Your task to perform on an android device: read, delete, or share a saved page in the chrome app Image 0: 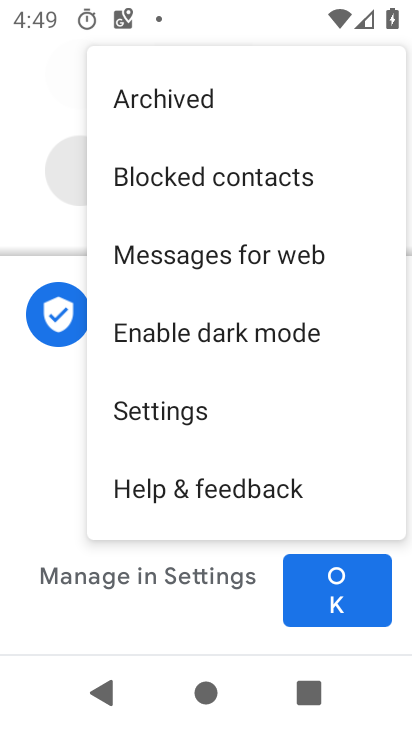
Step 0: press home button
Your task to perform on an android device: read, delete, or share a saved page in the chrome app Image 1: 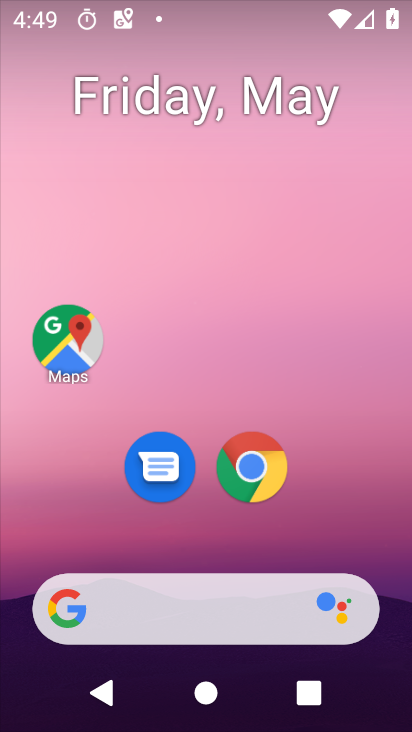
Step 1: click (254, 465)
Your task to perform on an android device: read, delete, or share a saved page in the chrome app Image 2: 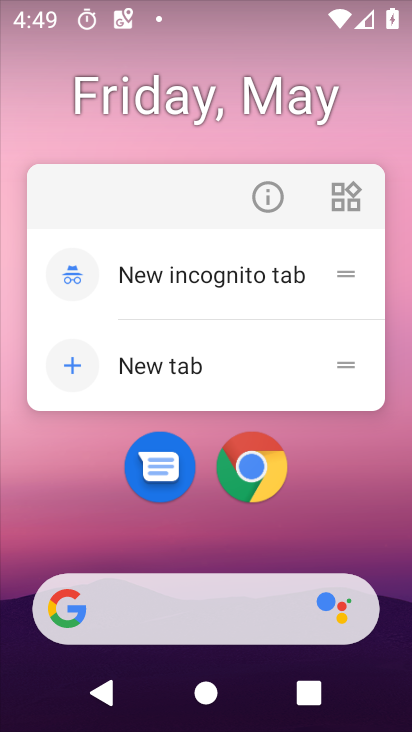
Step 2: click (247, 473)
Your task to perform on an android device: read, delete, or share a saved page in the chrome app Image 3: 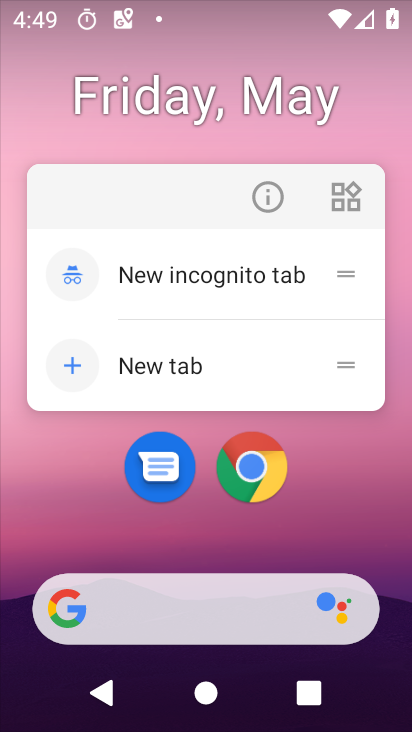
Step 3: click (293, 449)
Your task to perform on an android device: read, delete, or share a saved page in the chrome app Image 4: 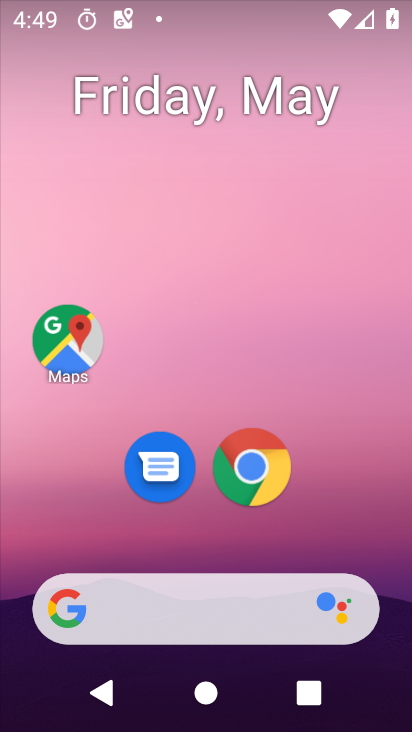
Step 4: click (370, 110)
Your task to perform on an android device: read, delete, or share a saved page in the chrome app Image 5: 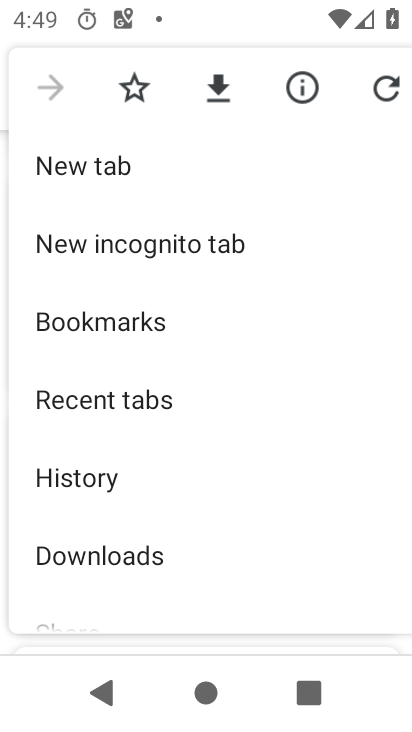
Step 5: press back button
Your task to perform on an android device: read, delete, or share a saved page in the chrome app Image 6: 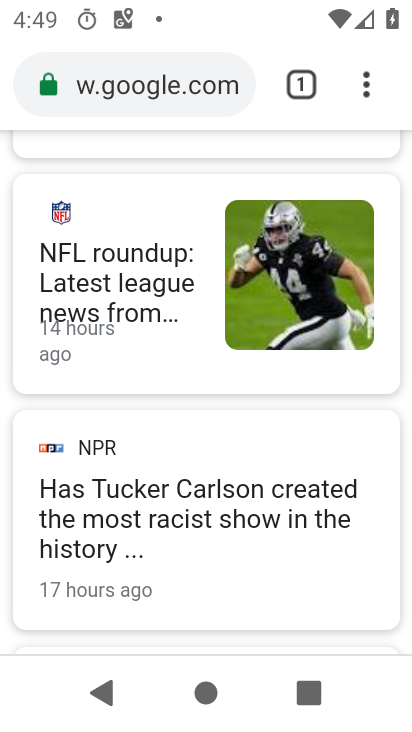
Step 6: drag from (371, 80) to (103, 555)
Your task to perform on an android device: read, delete, or share a saved page in the chrome app Image 7: 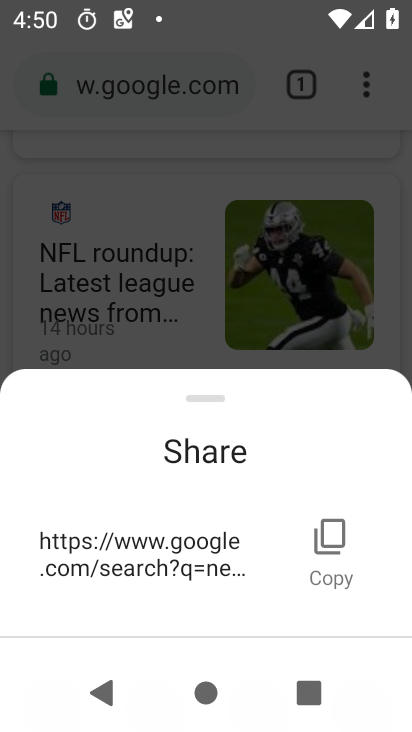
Step 7: click (245, 282)
Your task to perform on an android device: read, delete, or share a saved page in the chrome app Image 8: 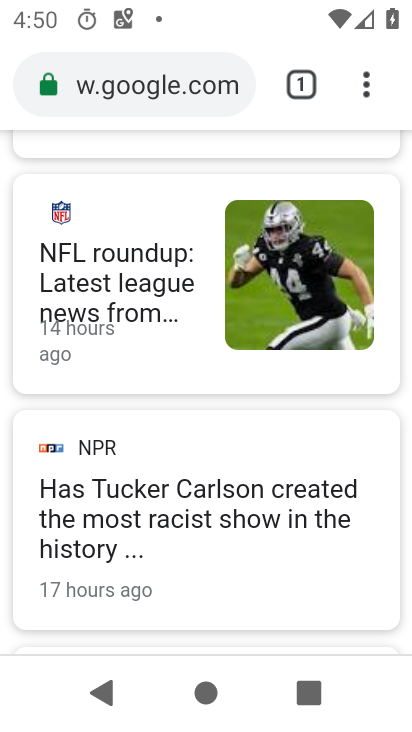
Step 8: task complete